Your task to perform on an android device: Turn on the flashlight Image 0: 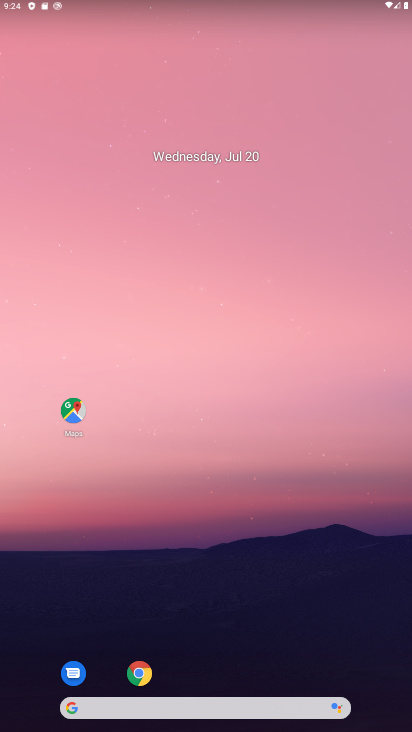
Step 0: drag from (222, 703) to (217, 110)
Your task to perform on an android device: Turn on the flashlight Image 1: 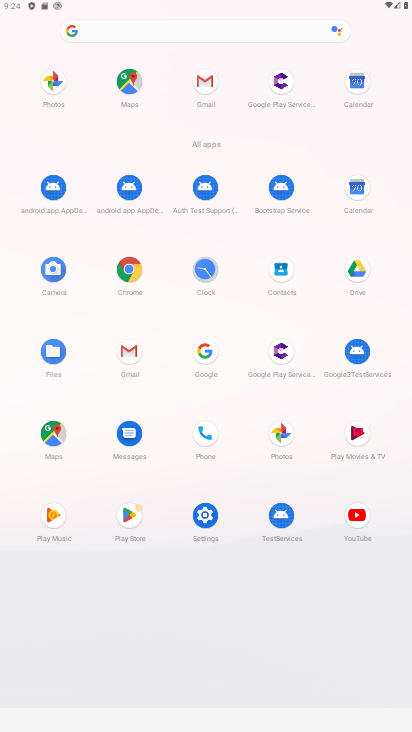
Step 1: click (206, 515)
Your task to perform on an android device: Turn on the flashlight Image 2: 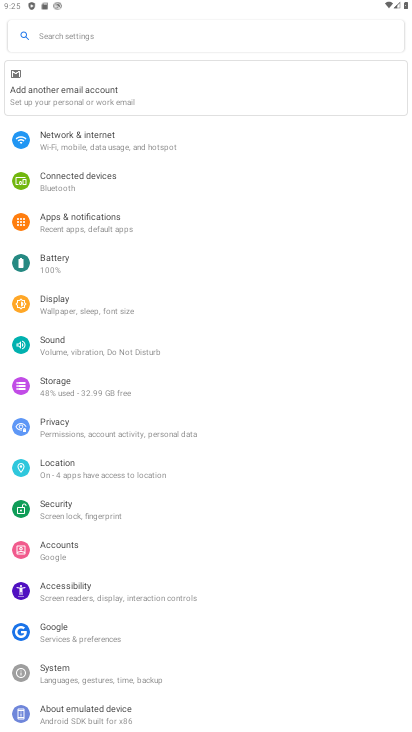
Step 2: click (103, 315)
Your task to perform on an android device: Turn on the flashlight Image 3: 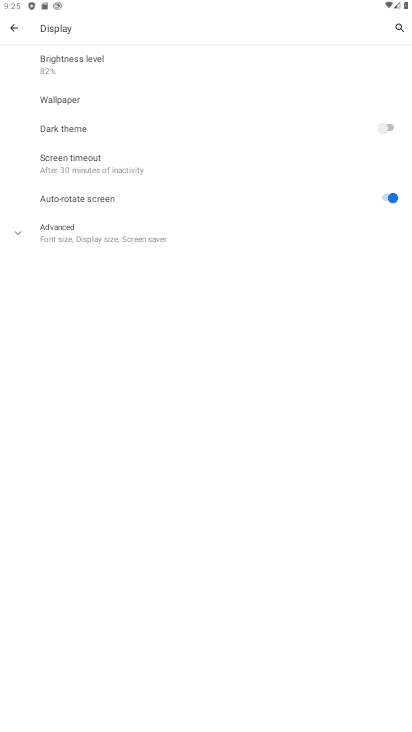
Step 3: press back button
Your task to perform on an android device: Turn on the flashlight Image 4: 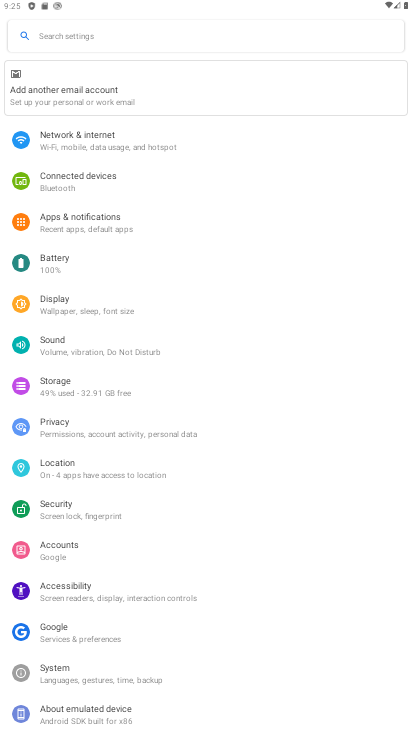
Step 4: click (80, 347)
Your task to perform on an android device: Turn on the flashlight Image 5: 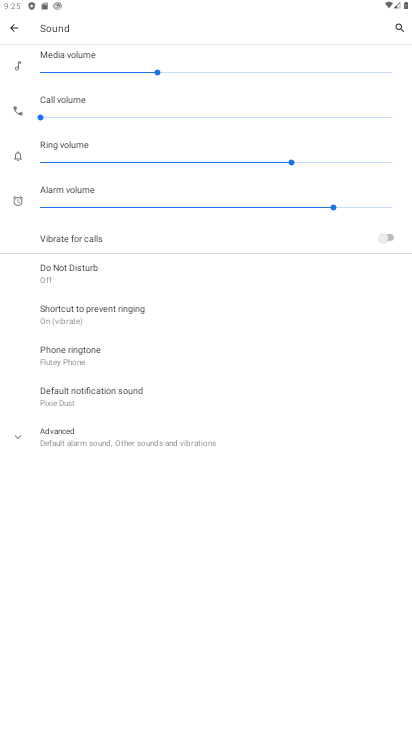
Step 5: press back button
Your task to perform on an android device: Turn on the flashlight Image 6: 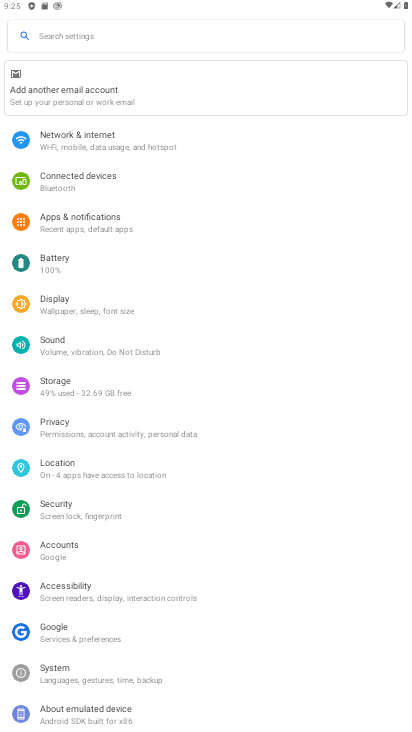
Step 6: click (65, 260)
Your task to perform on an android device: Turn on the flashlight Image 7: 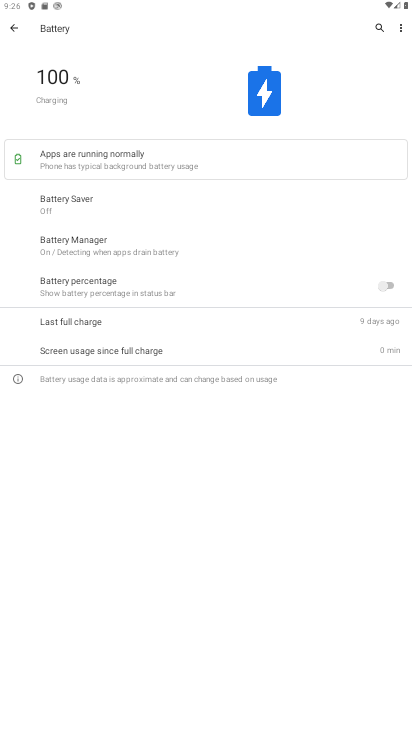
Step 7: task complete